Your task to perform on an android device: Open Google Chrome Image 0: 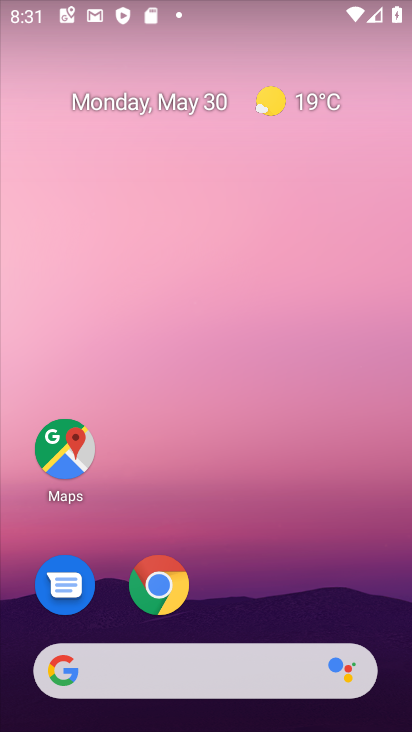
Step 0: drag from (237, 590) to (267, 27)
Your task to perform on an android device: Open Google Chrome Image 1: 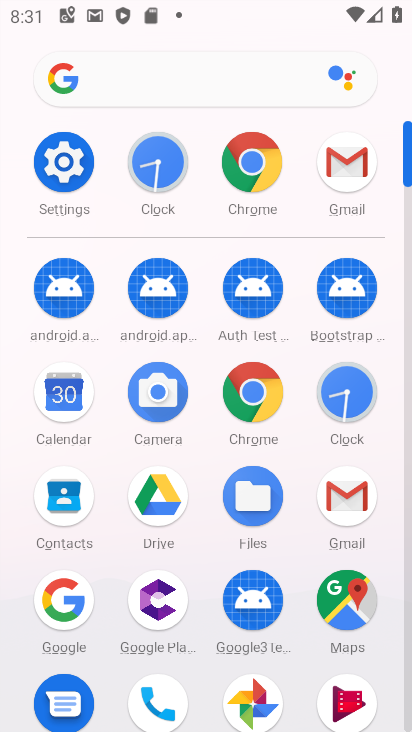
Step 1: click (235, 371)
Your task to perform on an android device: Open Google Chrome Image 2: 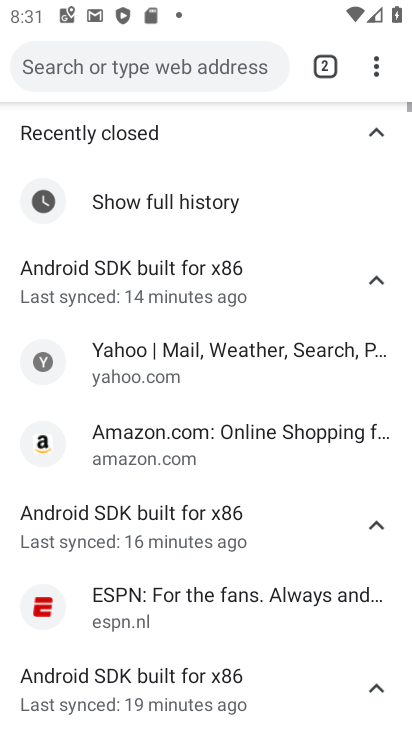
Step 2: task complete